Your task to perform on an android device: Go to Reddit.com Image 0: 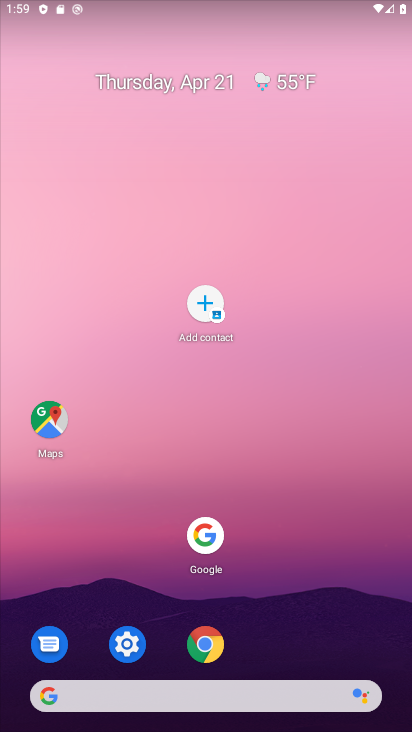
Step 0: drag from (226, 316) to (191, 91)
Your task to perform on an android device: Go to Reddit.com Image 1: 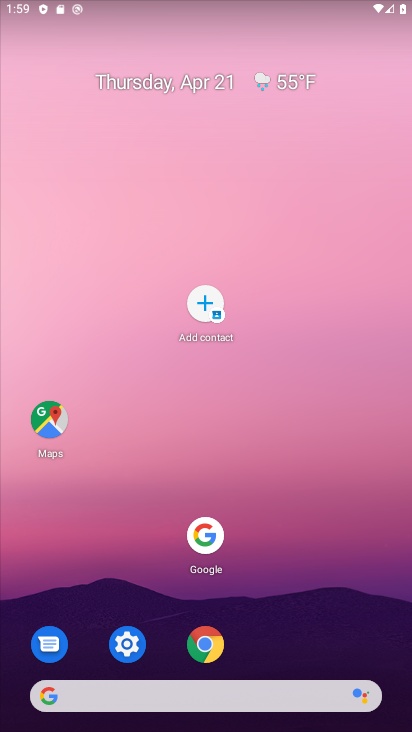
Step 1: drag from (284, 672) to (142, 42)
Your task to perform on an android device: Go to Reddit.com Image 2: 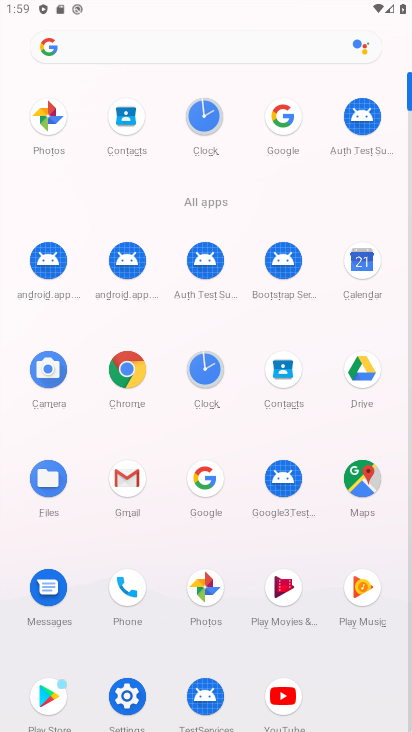
Step 2: click (279, 134)
Your task to perform on an android device: Go to Reddit.com Image 3: 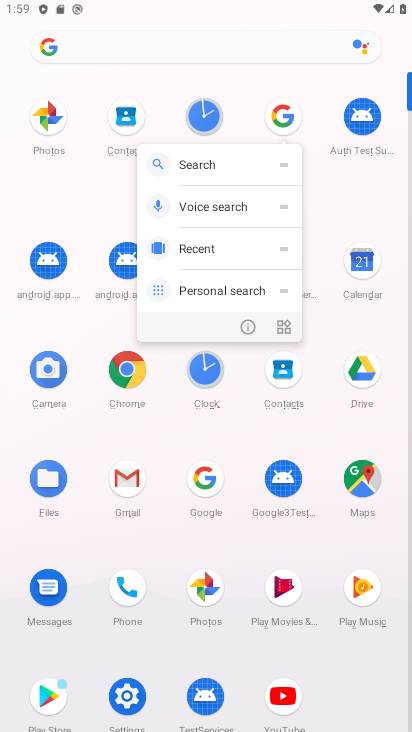
Step 3: click (280, 129)
Your task to perform on an android device: Go to Reddit.com Image 4: 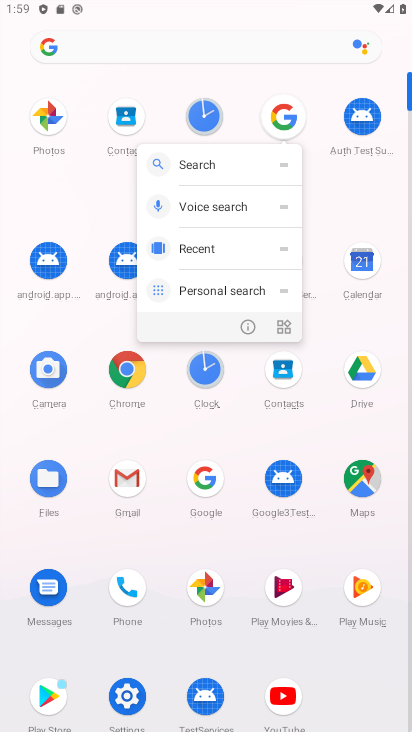
Step 4: click (280, 127)
Your task to perform on an android device: Go to Reddit.com Image 5: 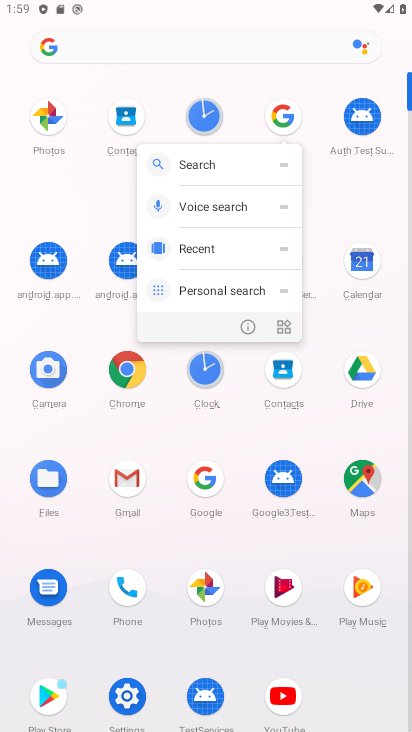
Step 5: click (280, 125)
Your task to perform on an android device: Go to Reddit.com Image 6: 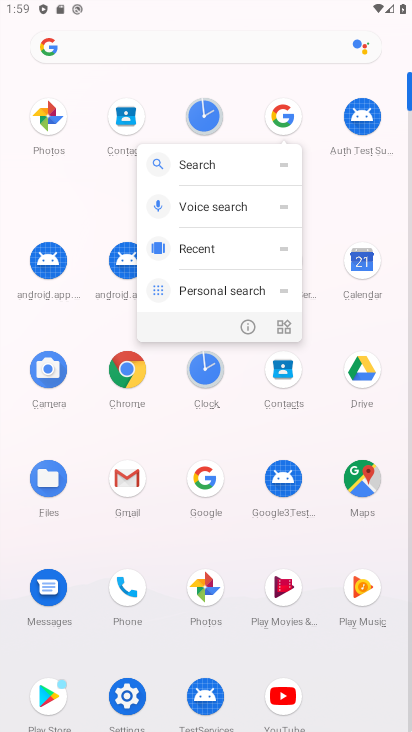
Step 6: click (283, 120)
Your task to perform on an android device: Go to Reddit.com Image 7: 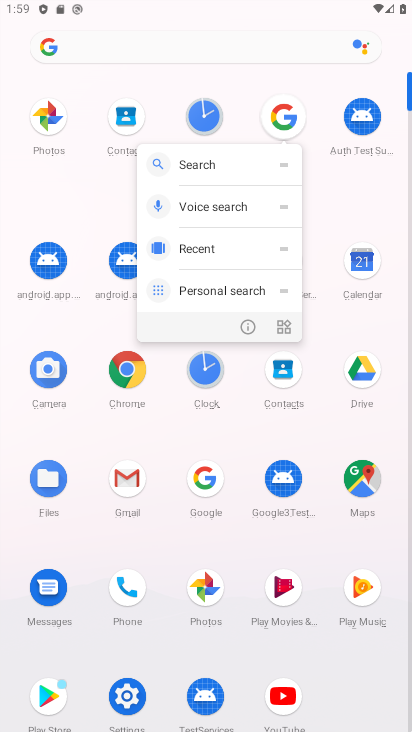
Step 7: click (283, 120)
Your task to perform on an android device: Go to Reddit.com Image 8: 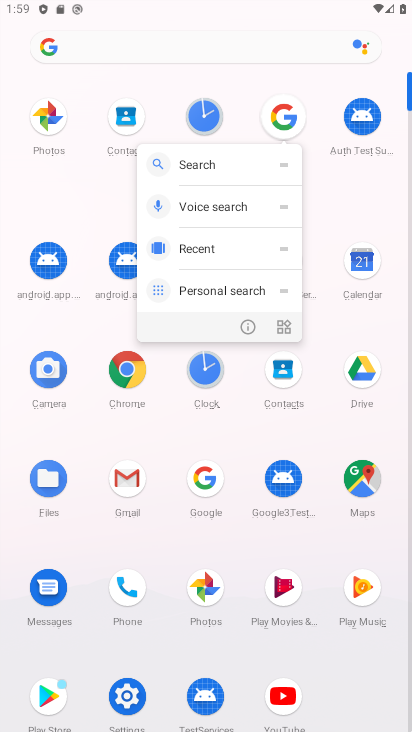
Step 8: click (283, 120)
Your task to perform on an android device: Go to Reddit.com Image 9: 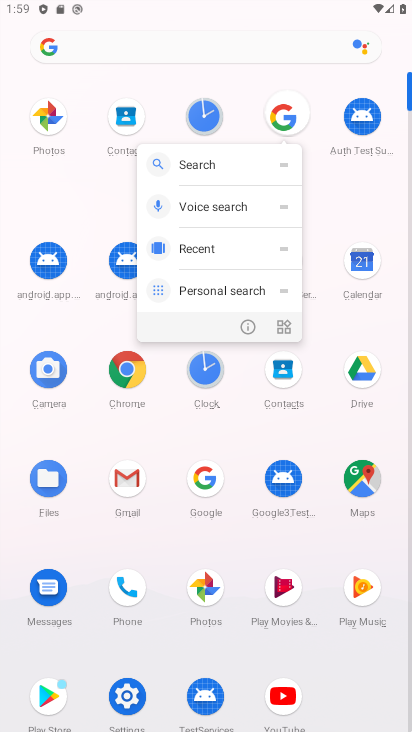
Step 9: click (287, 116)
Your task to perform on an android device: Go to Reddit.com Image 10: 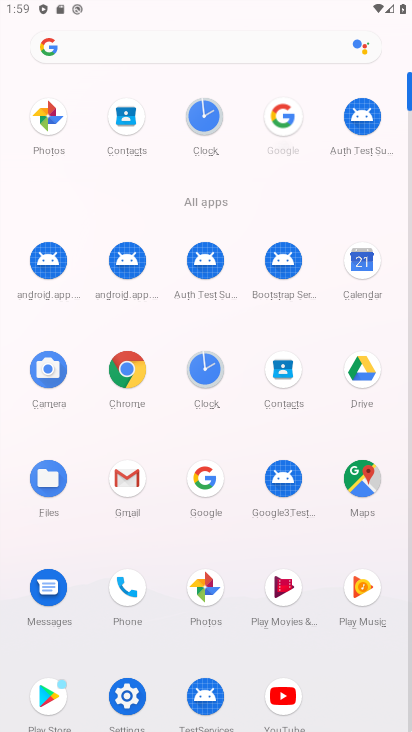
Step 10: click (287, 116)
Your task to perform on an android device: Go to Reddit.com Image 11: 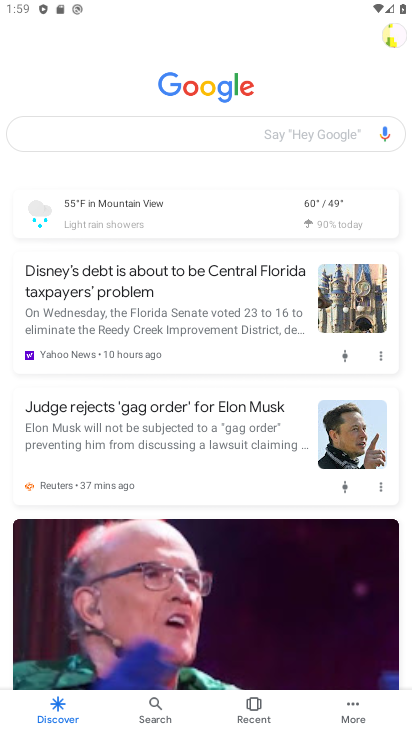
Step 11: click (50, 125)
Your task to perform on an android device: Go to Reddit.com Image 12: 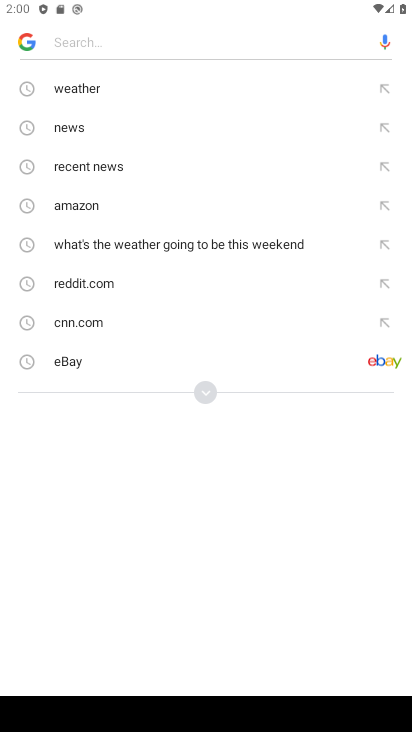
Step 12: type "www.reddit.com"
Your task to perform on an android device: Go to Reddit.com Image 13: 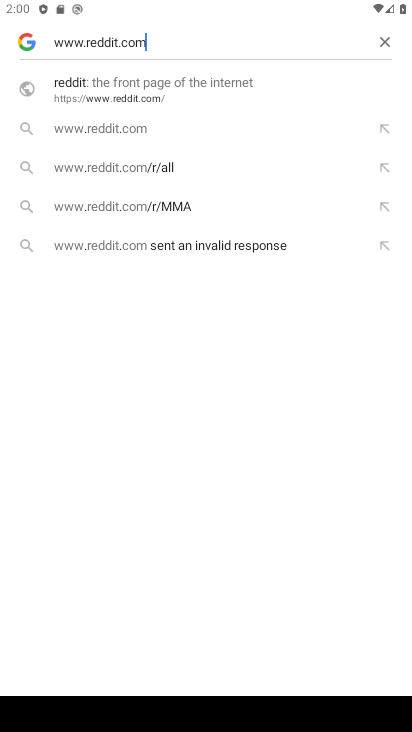
Step 13: click (135, 134)
Your task to perform on an android device: Go to Reddit.com Image 14: 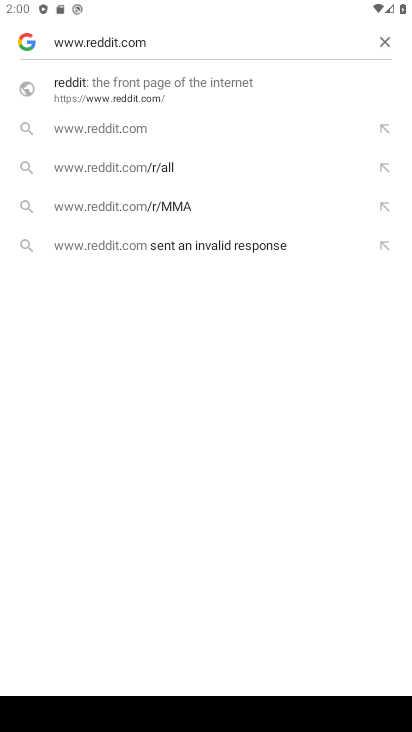
Step 14: click (137, 128)
Your task to perform on an android device: Go to Reddit.com Image 15: 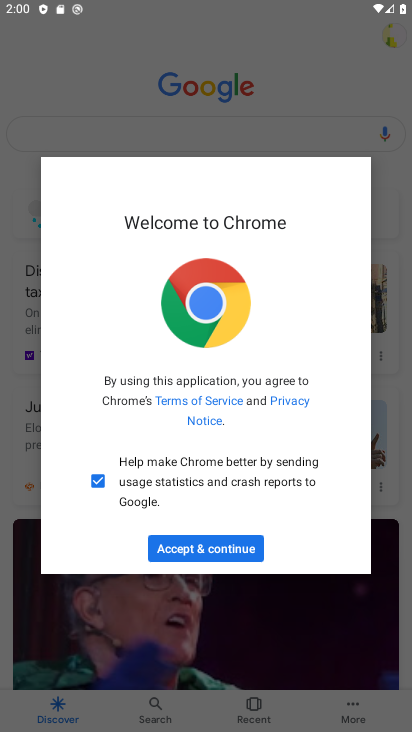
Step 15: click (185, 553)
Your task to perform on an android device: Go to Reddit.com Image 16: 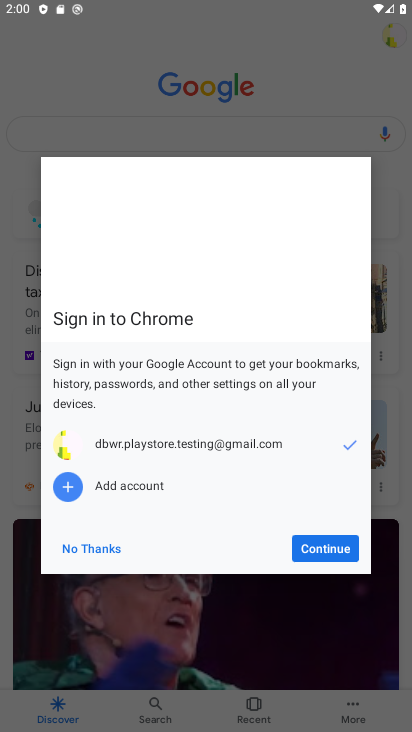
Step 16: click (185, 550)
Your task to perform on an android device: Go to Reddit.com Image 17: 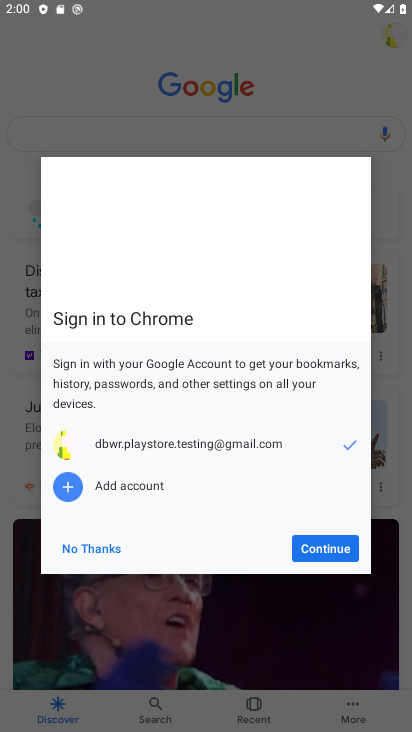
Step 17: click (325, 549)
Your task to perform on an android device: Go to Reddit.com Image 18: 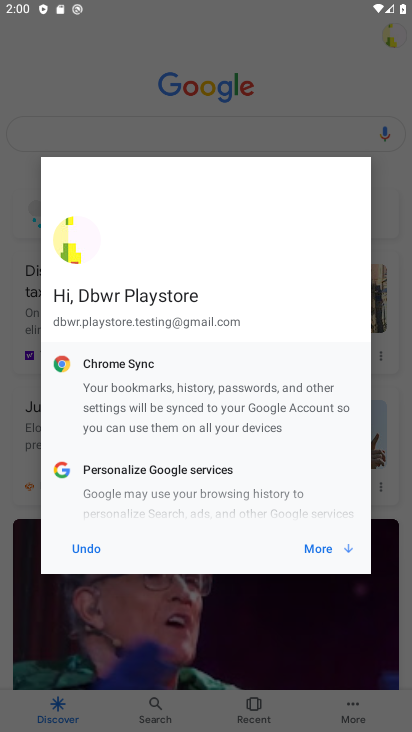
Step 18: click (329, 547)
Your task to perform on an android device: Go to Reddit.com Image 19: 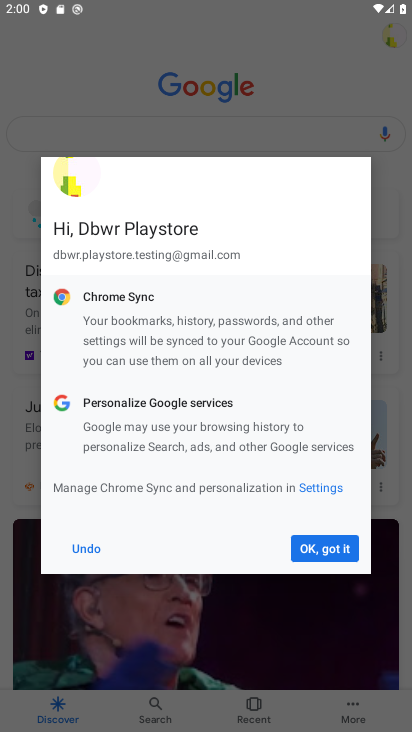
Step 19: click (328, 542)
Your task to perform on an android device: Go to Reddit.com Image 20: 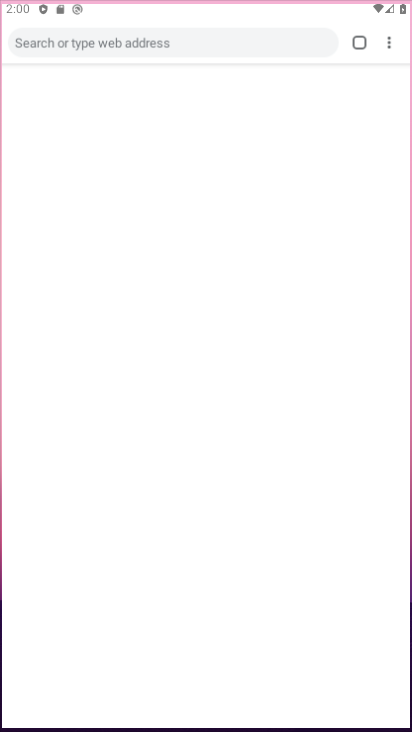
Step 20: click (328, 550)
Your task to perform on an android device: Go to Reddit.com Image 21: 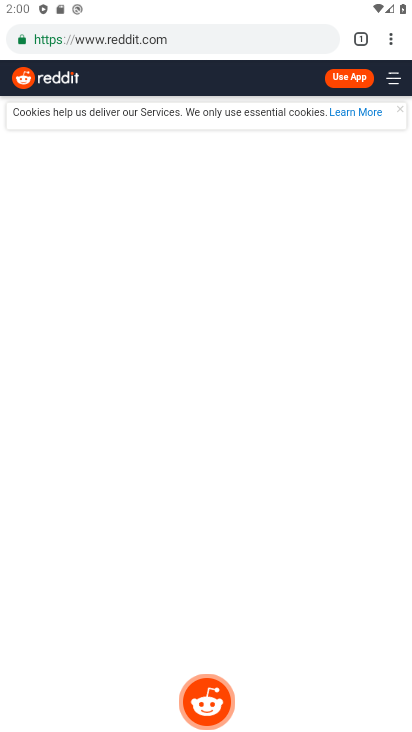
Step 21: task complete